Your task to perform on an android device: Search for a new foundation (skincare) product Image 0: 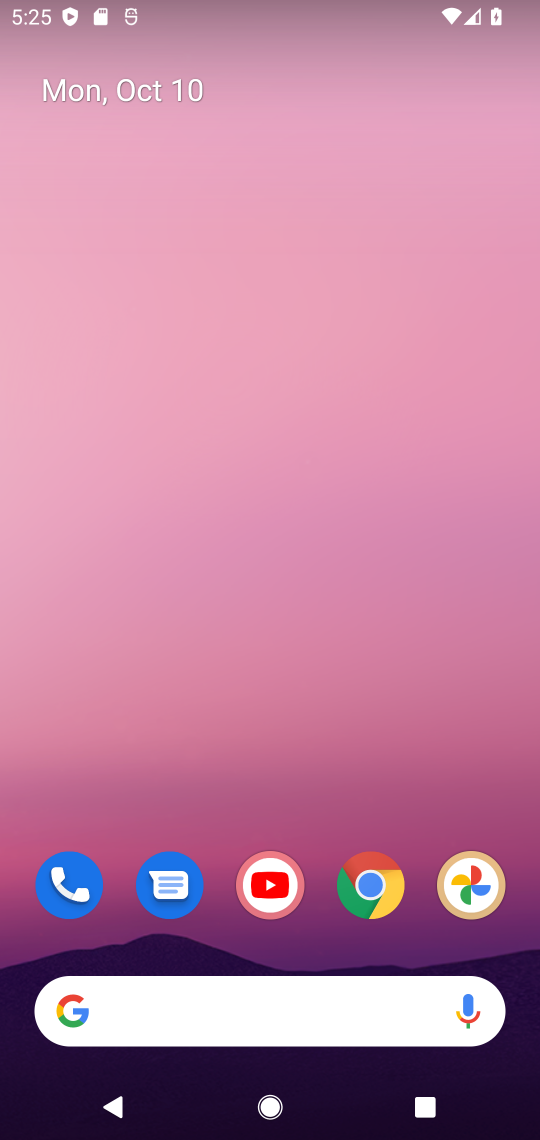
Step 0: click (358, 895)
Your task to perform on an android device: Search for a new foundation (skincare) product Image 1: 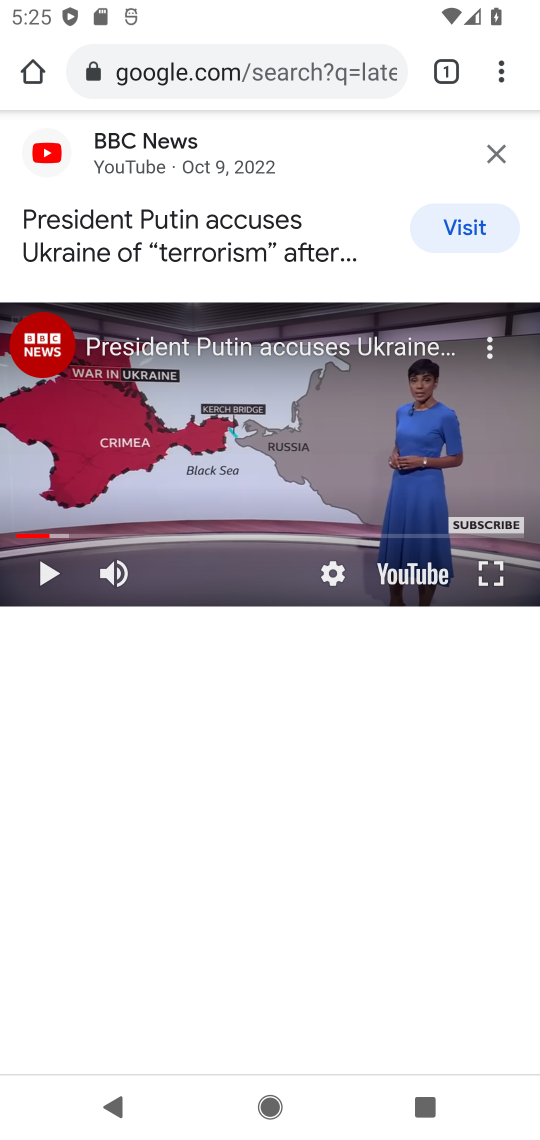
Step 1: click (284, 73)
Your task to perform on an android device: Search for a new foundation (skincare) product Image 2: 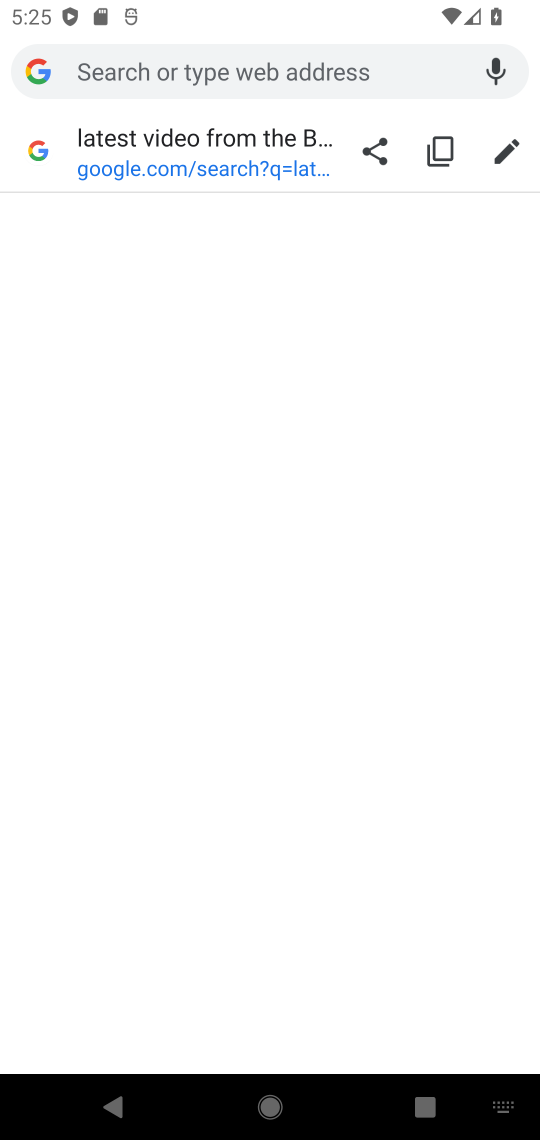
Step 2: type "new foundation (skincare) product"
Your task to perform on an android device: Search for a new foundation (skincare) product Image 3: 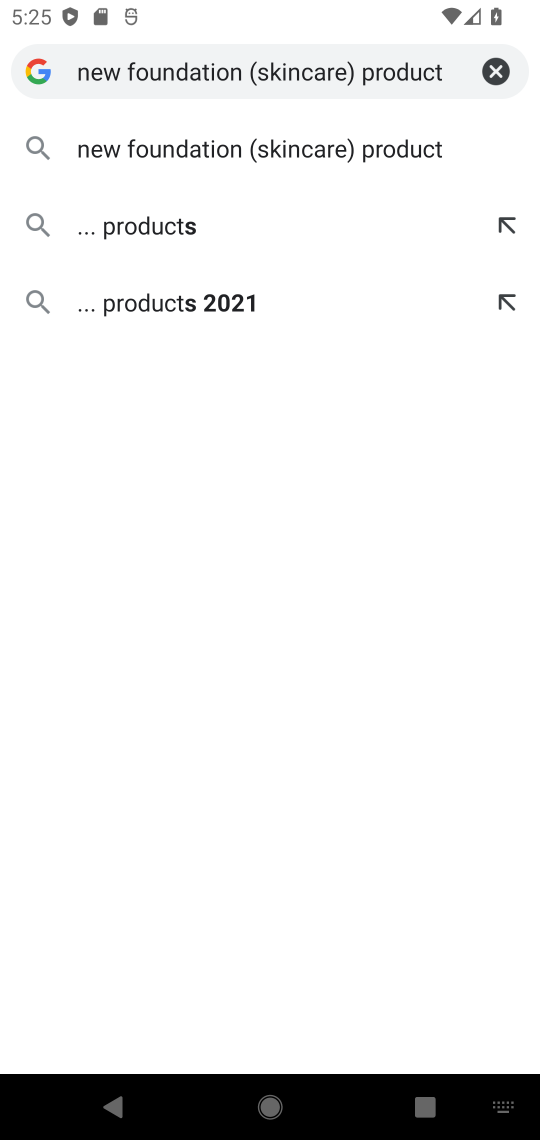
Step 3: click (401, 149)
Your task to perform on an android device: Search for a new foundation (skincare) product Image 4: 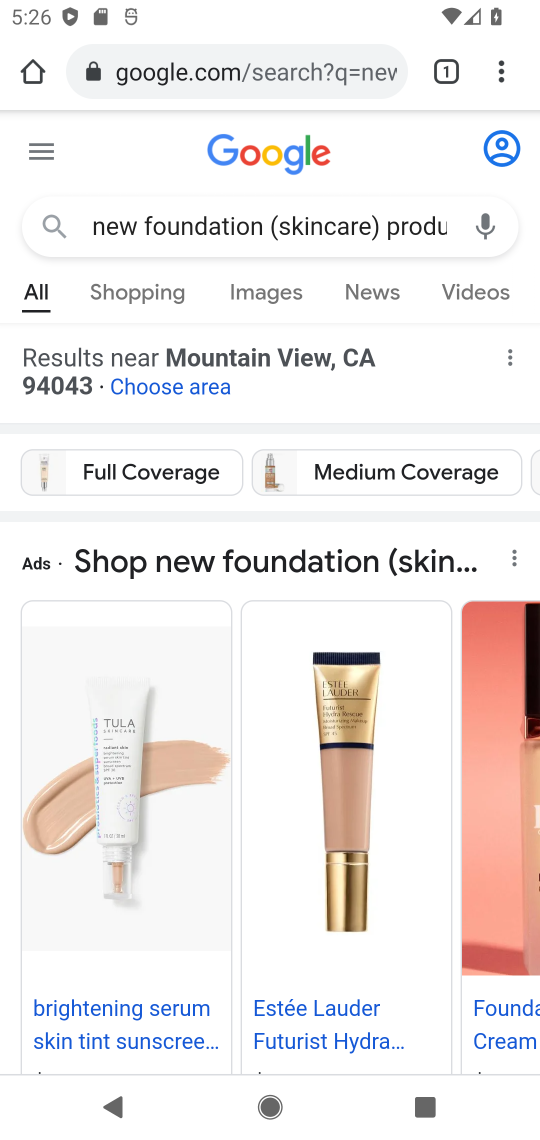
Step 4: drag from (339, 1059) to (325, 237)
Your task to perform on an android device: Search for a new foundation (skincare) product Image 5: 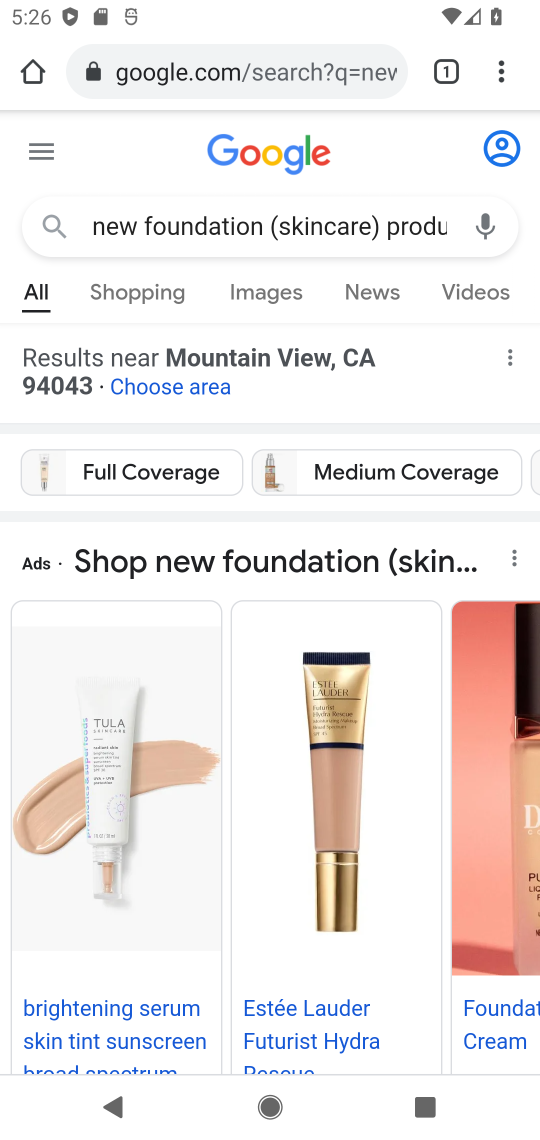
Step 5: drag from (382, 854) to (385, 208)
Your task to perform on an android device: Search for a new foundation (skincare) product Image 6: 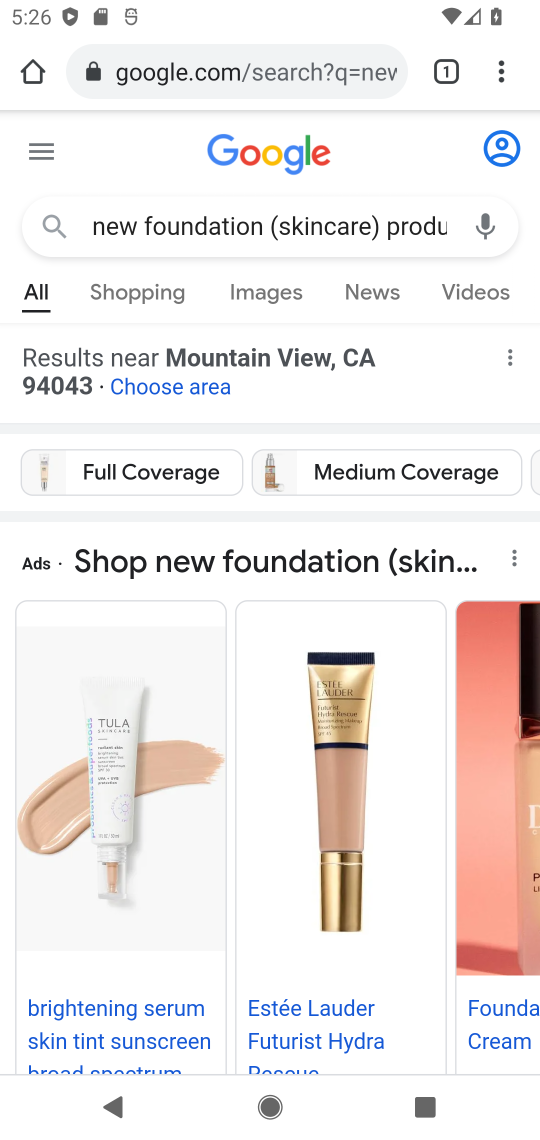
Step 6: drag from (315, 398) to (255, 93)
Your task to perform on an android device: Search for a new foundation (skincare) product Image 7: 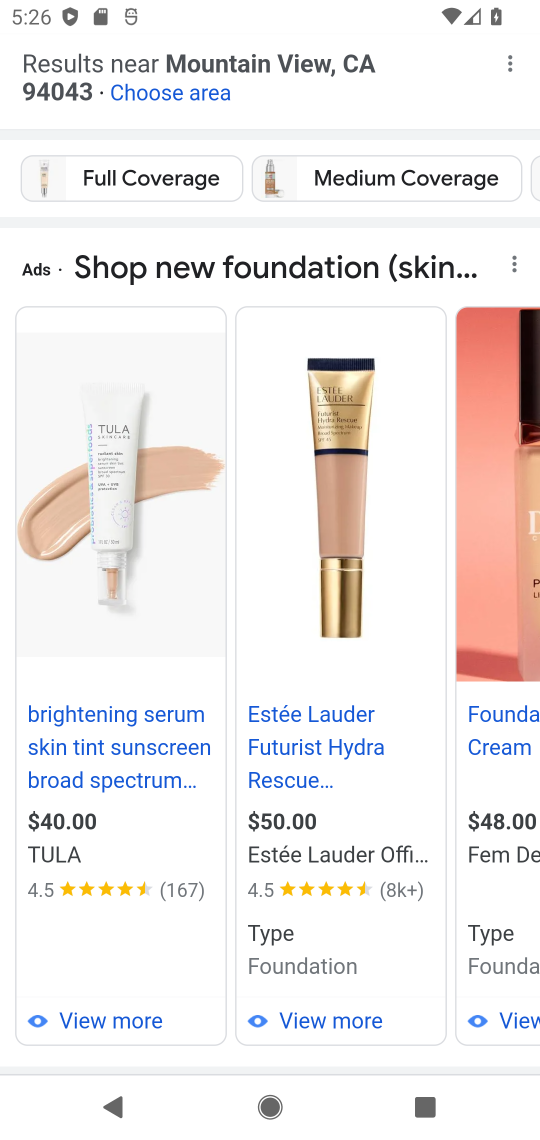
Step 7: drag from (420, 1055) to (360, 629)
Your task to perform on an android device: Search for a new foundation (skincare) product Image 8: 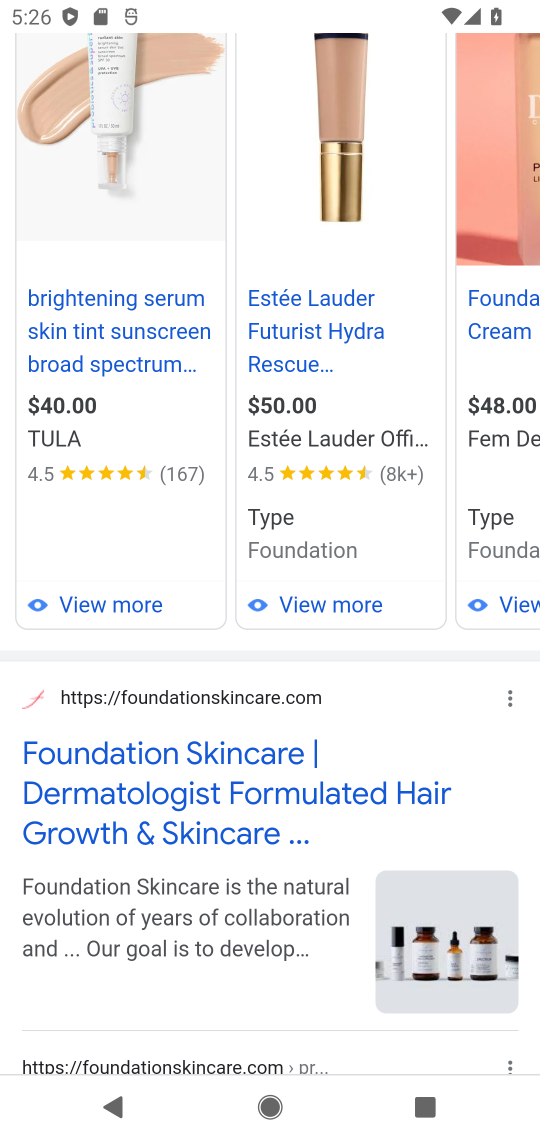
Step 8: click (267, 794)
Your task to perform on an android device: Search for a new foundation (skincare) product Image 9: 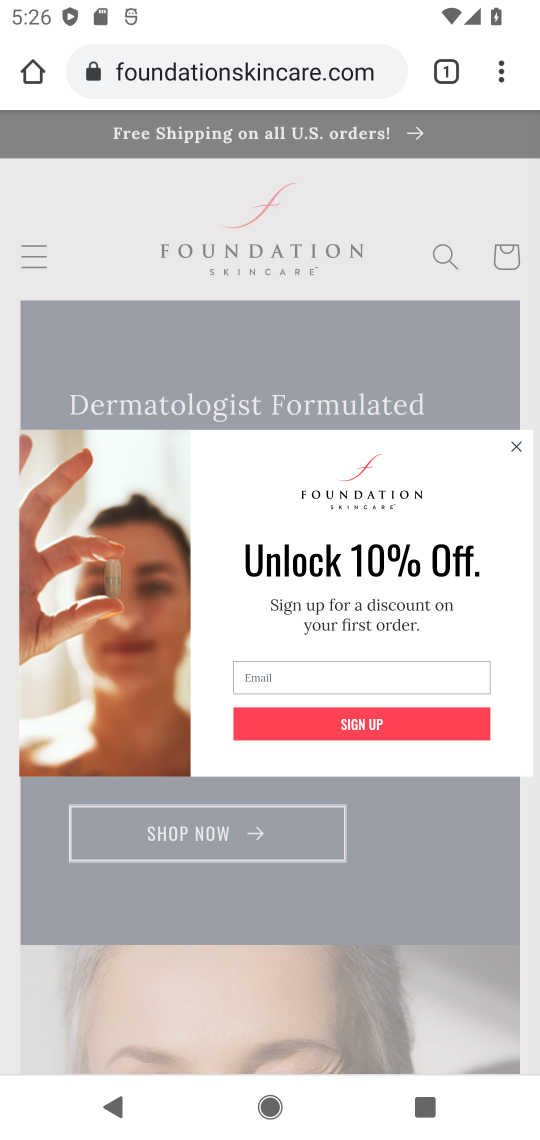
Step 9: task complete